Your task to perform on an android device: see creations saved in the google photos Image 0: 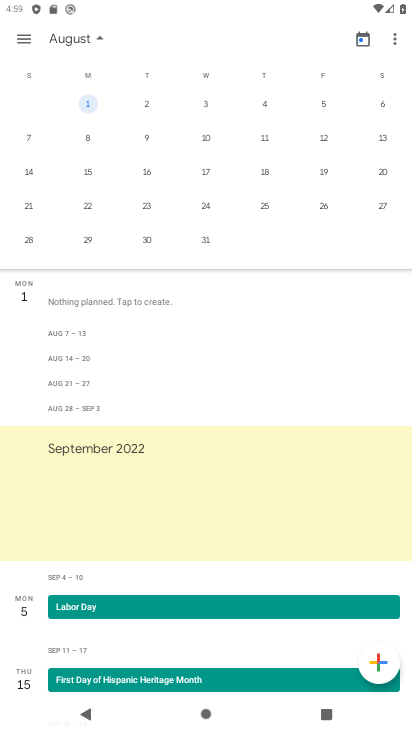
Step 0: press home button
Your task to perform on an android device: see creations saved in the google photos Image 1: 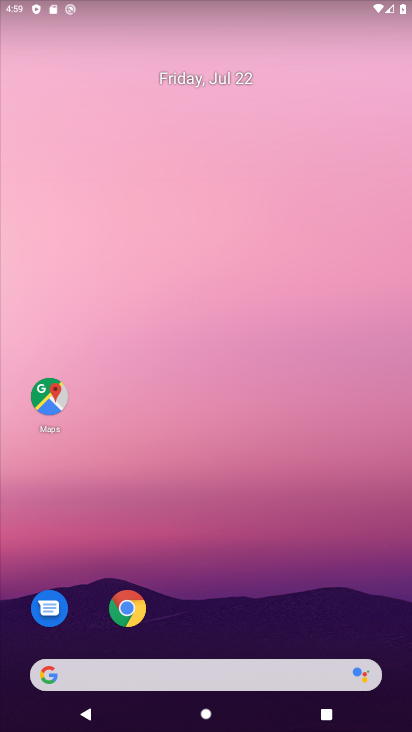
Step 1: drag from (222, 633) to (210, 287)
Your task to perform on an android device: see creations saved in the google photos Image 2: 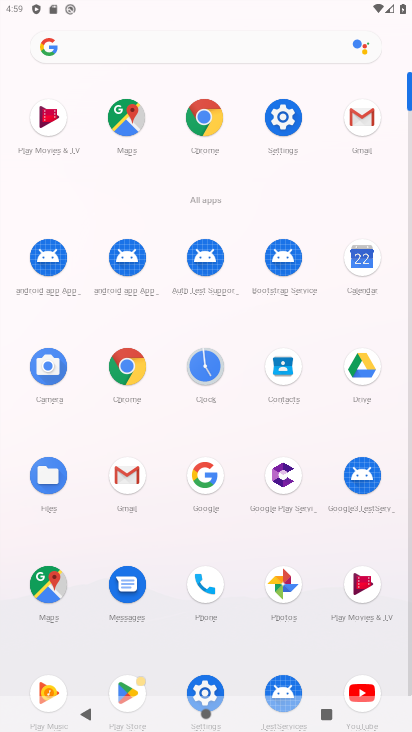
Step 2: click (275, 587)
Your task to perform on an android device: see creations saved in the google photos Image 3: 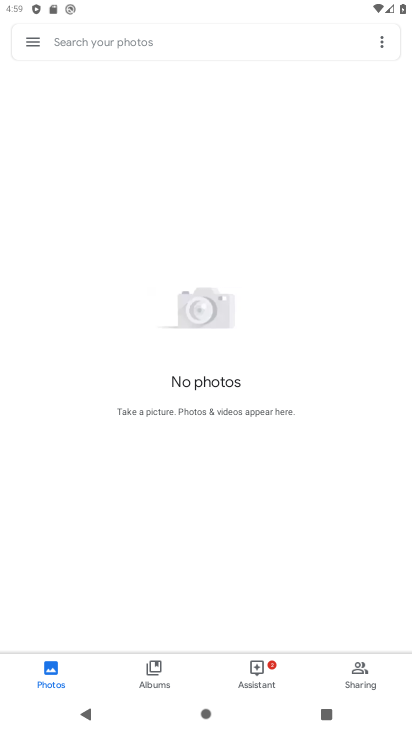
Step 3: task complete